Your task to perform on an android device: Go to settings Image 0: 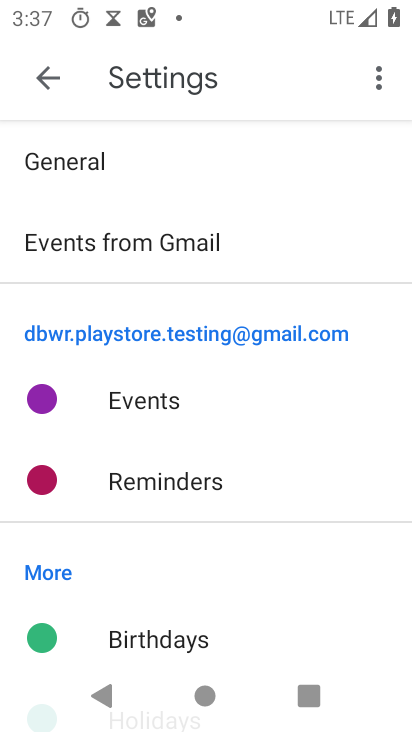
Step 0: press home button
Your task to perform on an android device: Go to settings Image 1: 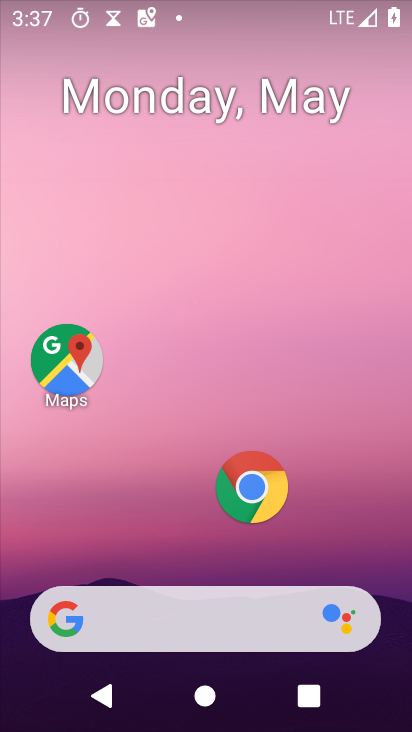
Step 1: drag from (197, 565) to (216, 87)
Your task to perform on an android device: Go to settings Image 2: 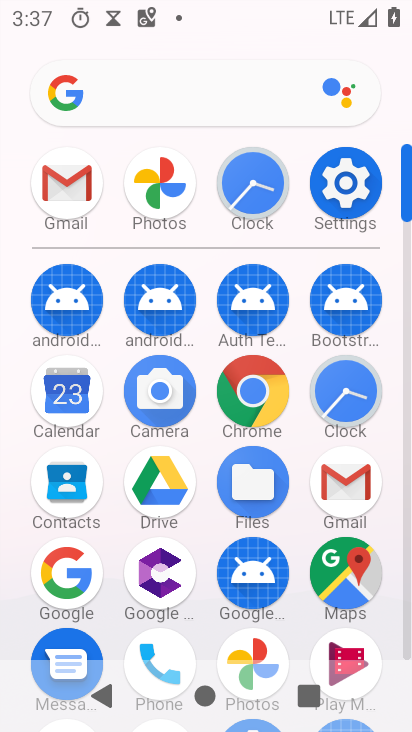
Step 2: click (338, 176)
Your task to perform on an android device: Go to settings Image 3: 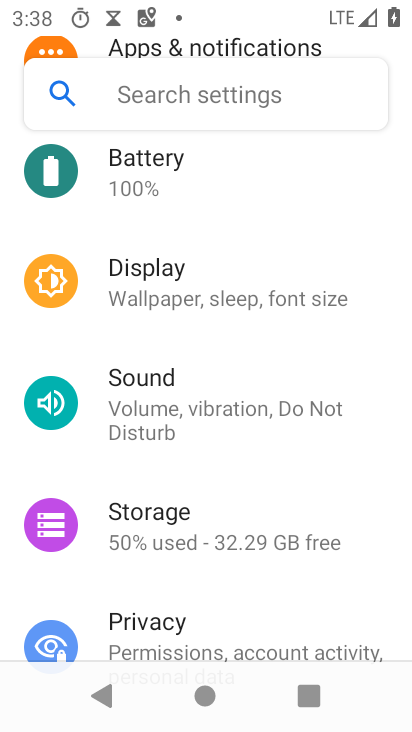
Step 3: task complete